Your task to perform on an android device: Go to Maps Image 0: 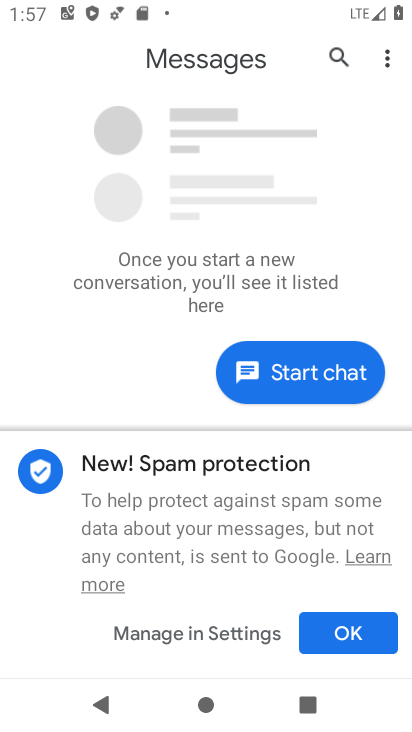
Step 0: press home button
Your task to perform on an android device: Go to Maps Image 1: 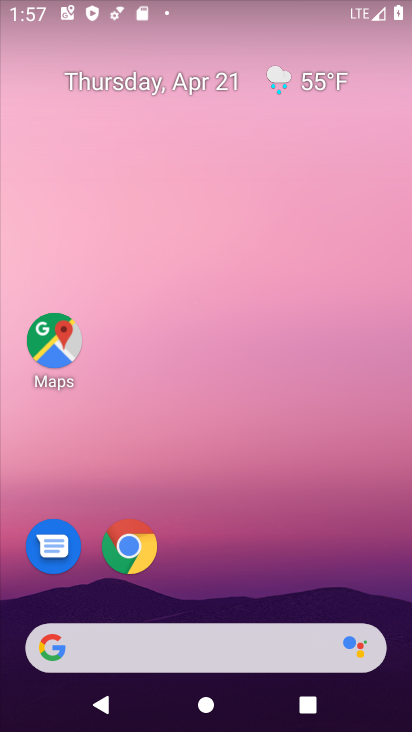
Step 1: click (32, 342)
Your task to perform on an android device: Go to Maps Image 2: 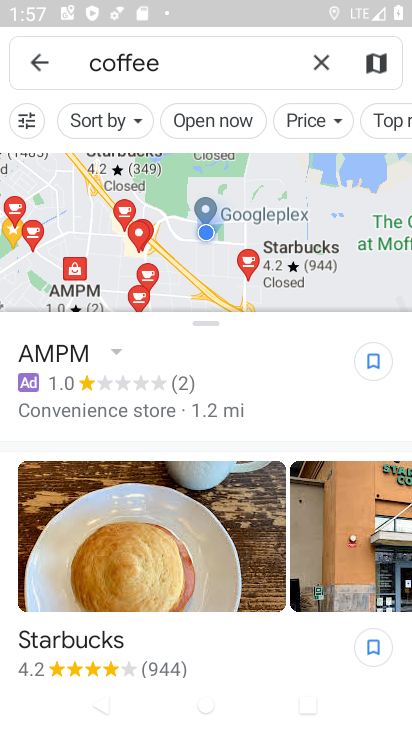
Step 2: task complete